Your task to perform on an android device: turn on priority inbox in the gmail app Image 0: 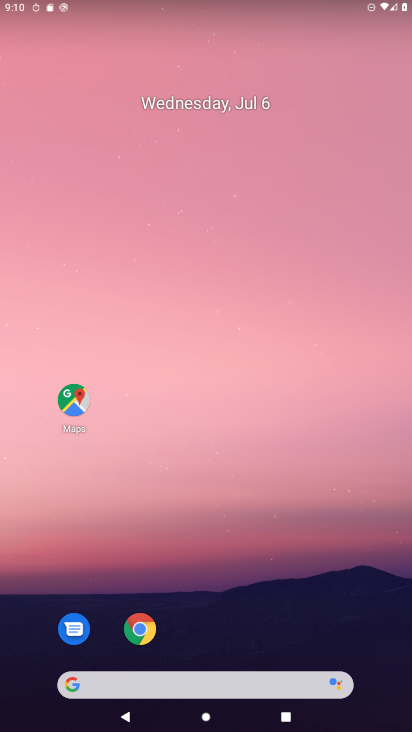
Step 0: drag from (225, 727) to (225, 143)
Your task to perform on an android device: turn on priority inbox in the gmail app Image 1: 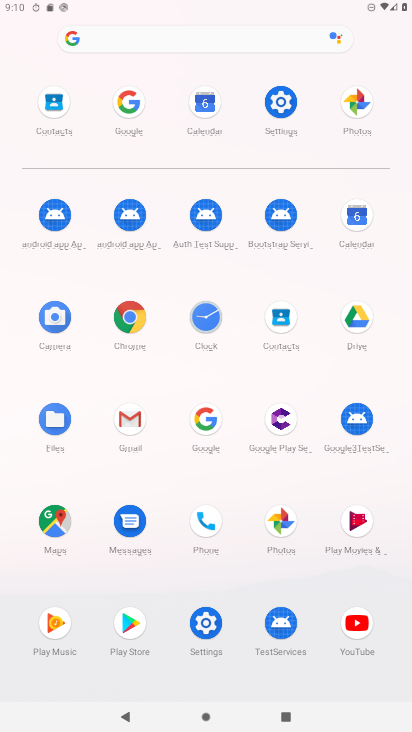
Step 1: click (129, 417)
Your task to perform on an android device: turn on priority inbox in the gmail app Image 2: 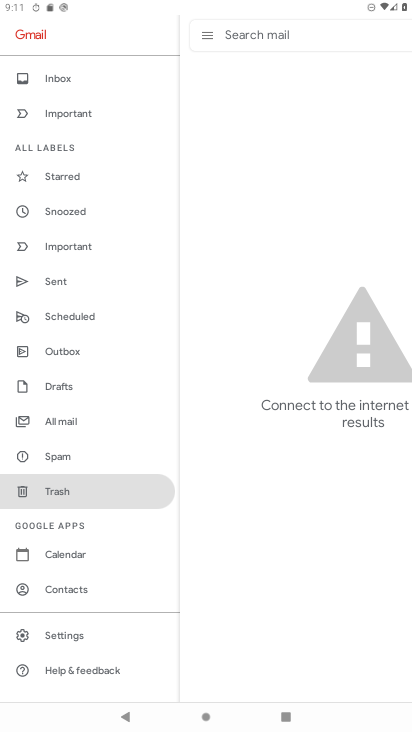
Step 2: click (61, 630)
Your task to perform on an android device: turn on priority inbox in the gmail app Image 3: 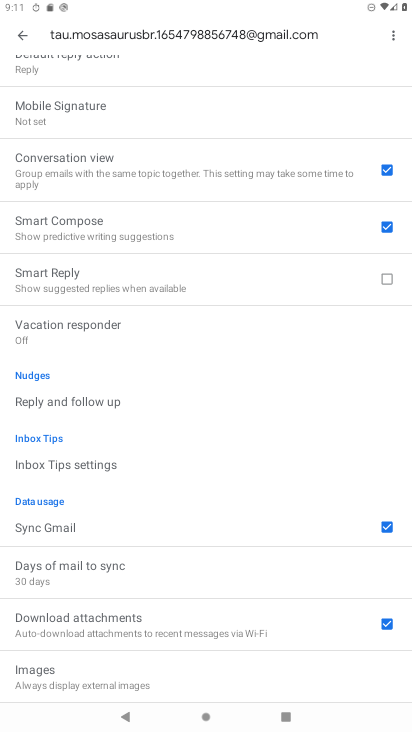
Step 3: drag from (213, 105) to (213, 528)
Your task to perform on an android device: turn on priority inbox in the gmail app Image 4: 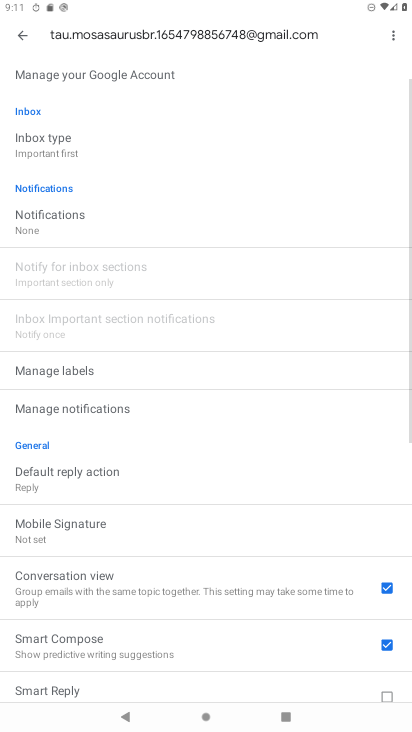
Step 4: drag from (273, 105) to (266, 485)
Your task to perform on an android device: turn on priority inbox in the gmail app Image 5: 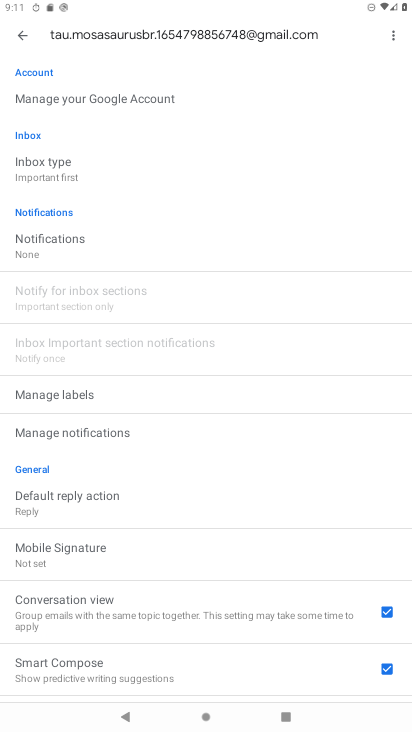
Step 5: click (48, 161)
Your task to perform on an android device: turn on priority inbox in the gmail app Image 6: 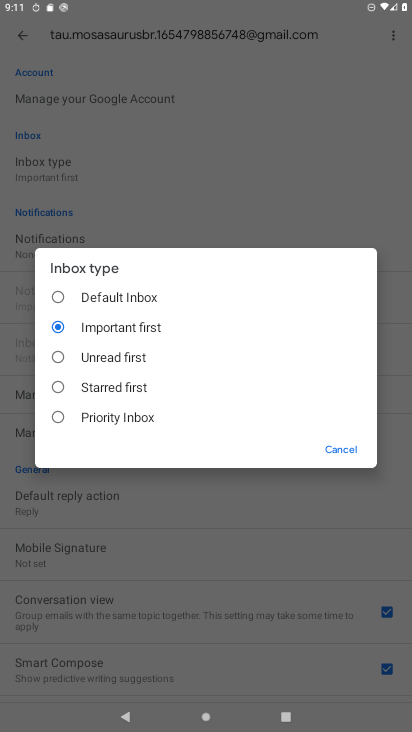
Step 6: click (59, 414)
Your task to perform on an android device: turn on priority inbox in the gmail app Image 7: 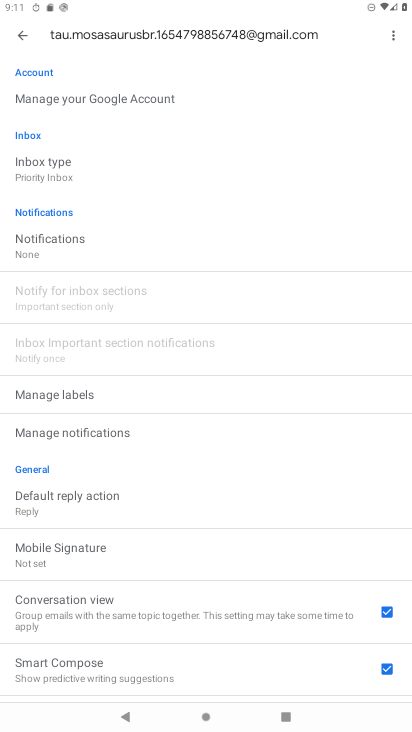
Step 7: task complete